Your task to perform on an android device: find which apps use the phone's location Image 0: 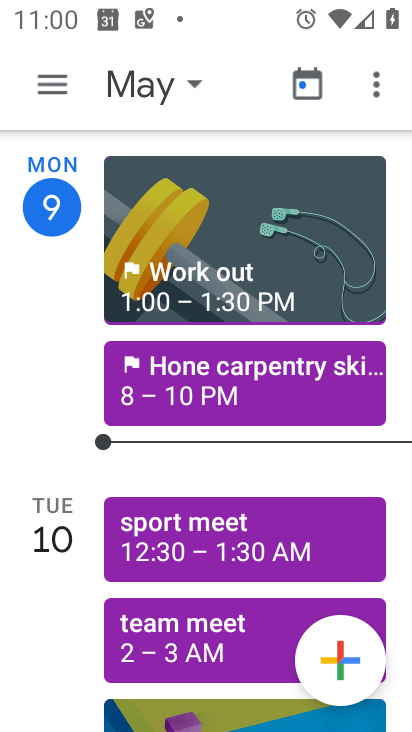
Step 0: press home button
Your task to perform on an android device: find which apps use the phone's location Image 1: 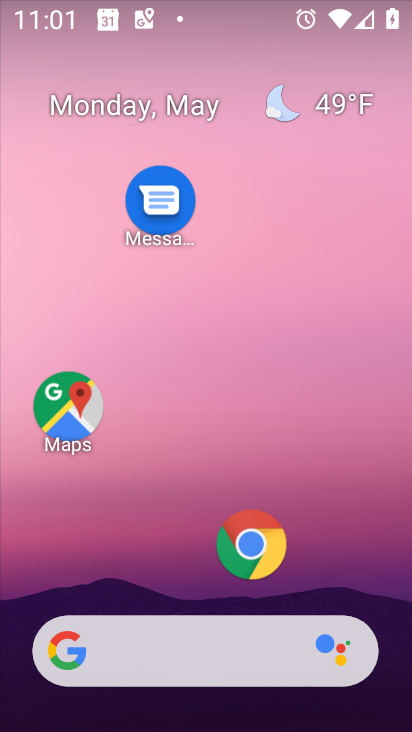
Step 1: drag from (313, 603) to (361, 15)
Your task to perform on an android device: find which apps use the phone's location Image 2: 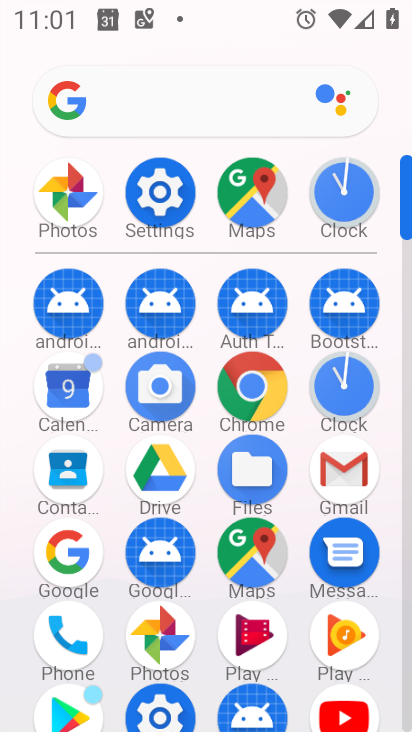
Step 2: click (163, 194)
Your task to perform on an android device: find which apps use the phone's location Image 3: 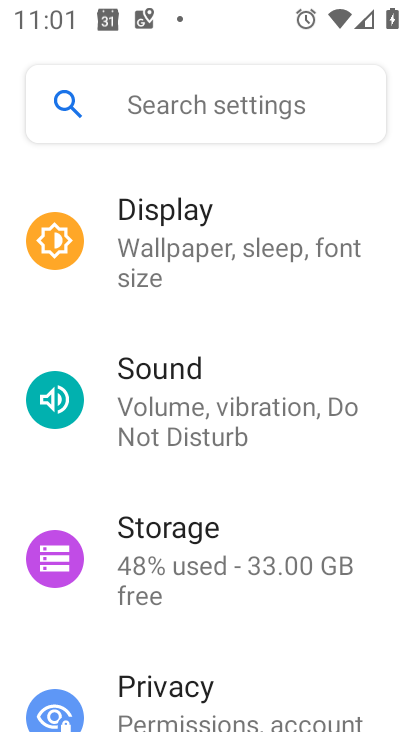
Step 3: drag from (250, 642) to (334, 339)
Your task to perform on an android device: find which apps use the phone's location Image 4: 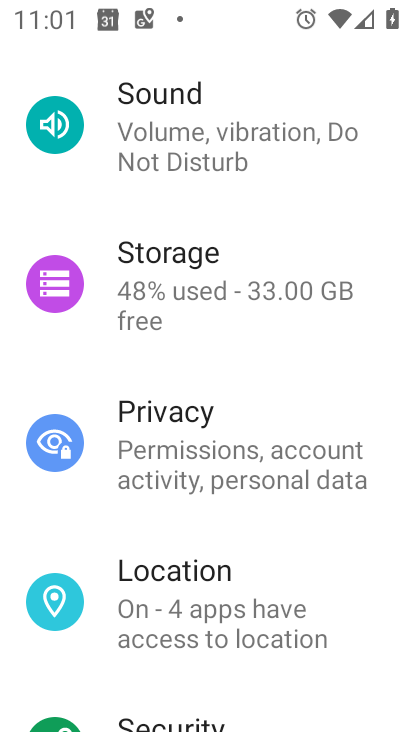
Step 4: click (233, 605)
Your task to perform on an android device: find which apps use the phone's location Image 5: 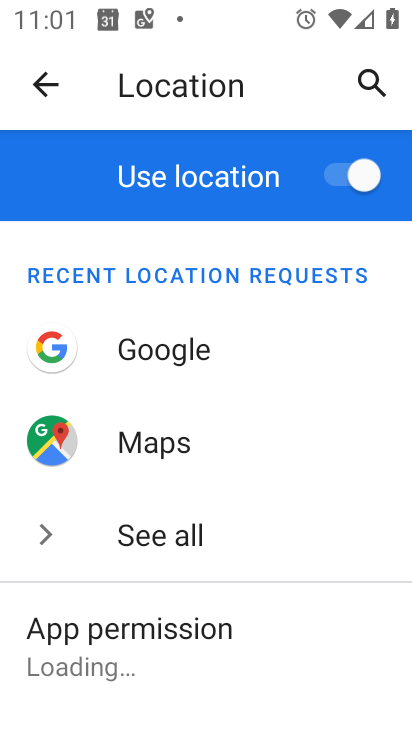
Step 5: drag from (220, 643) to (269, 479)
Your task to perform on an android device: find which apps use the phone's location Image 6: 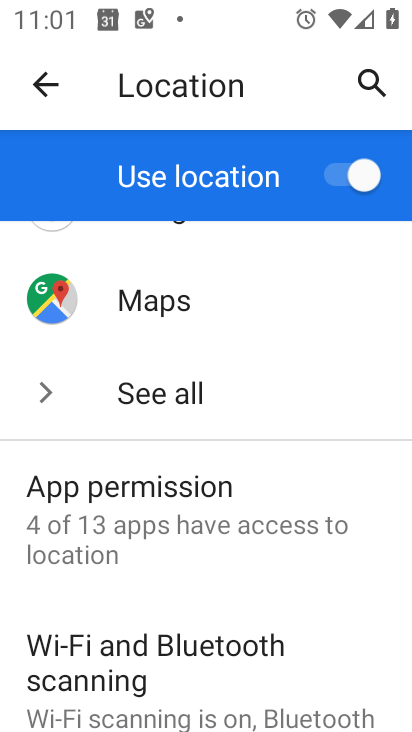
Step 6: click (253, 499)
Your task to perform on an android device: find which apps use the phone's location Image 7: 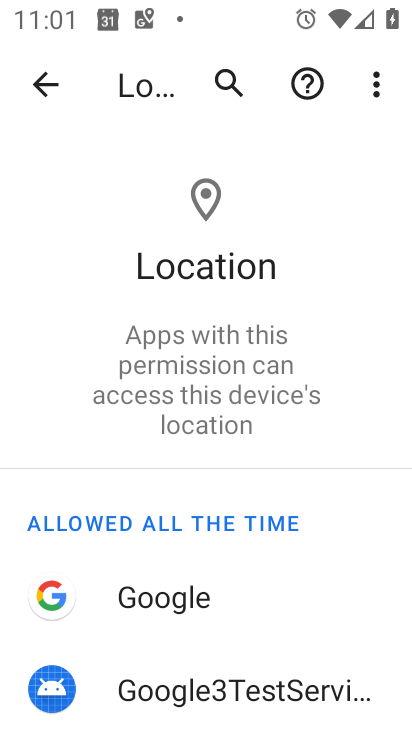
Step 7: task complete